Your task to perform on an android device: Open network settings Image 0: 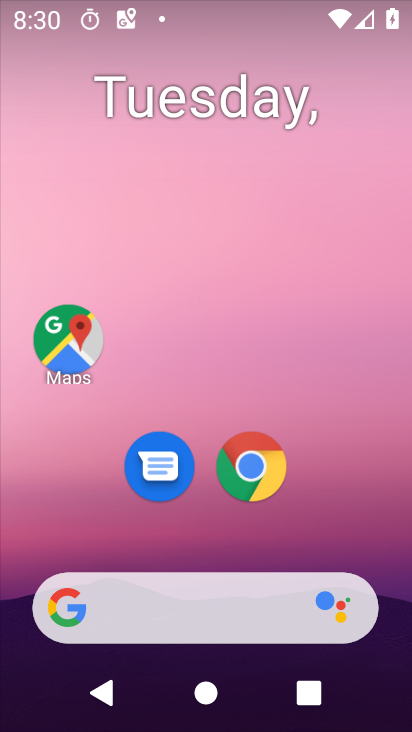
Step 0: drag from (210, 557) to (221, 37)
Your task to perform on an android device: Open network settings Image 1: 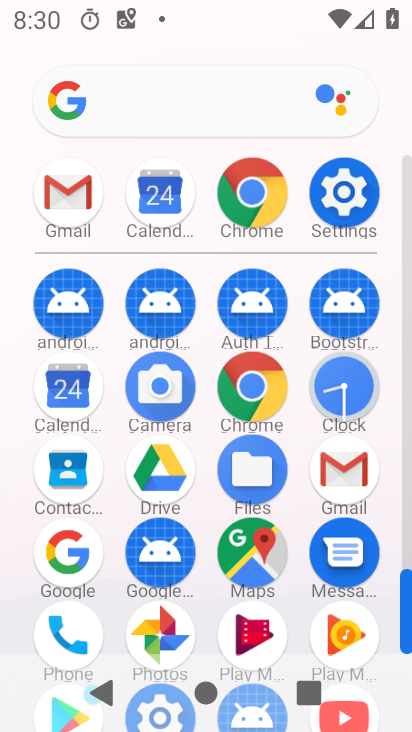
Step 1: click (351, 199)
Your task to perform on an android device: Open network settings Image 2: 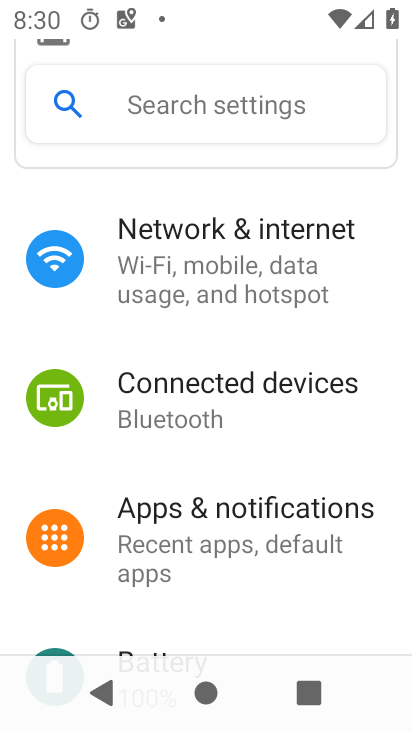
Step 2: click (296, 285)
Your task to perform on an android device: Open network settings Image 3: 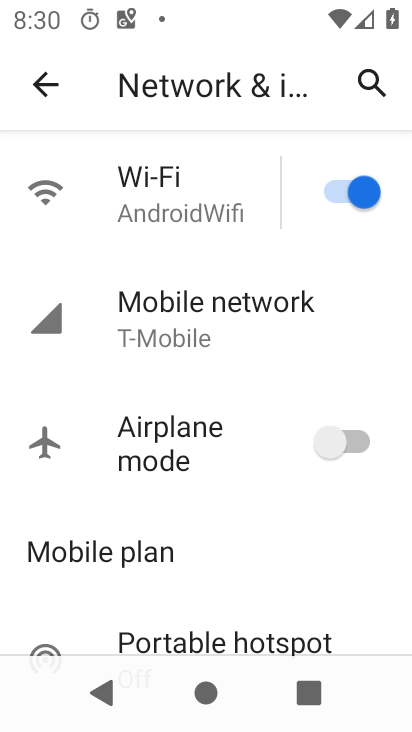
Step 3: task complete